Your task to perform on an android device: empty trash in google photos Image 0: 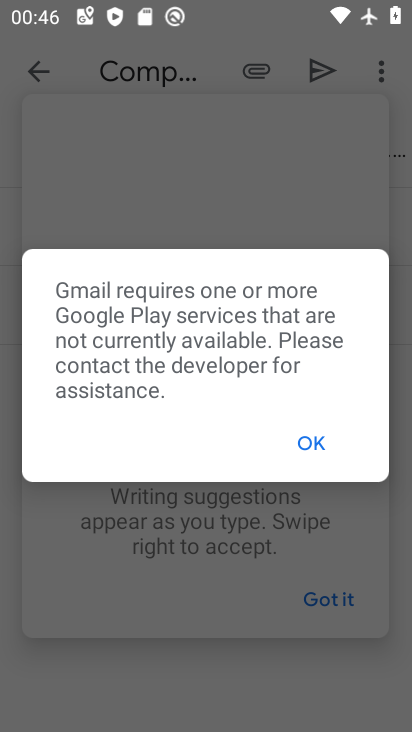
Step 0: click (304, 445)
Your task to perform on an android device: empty trash in google photos Image 1: 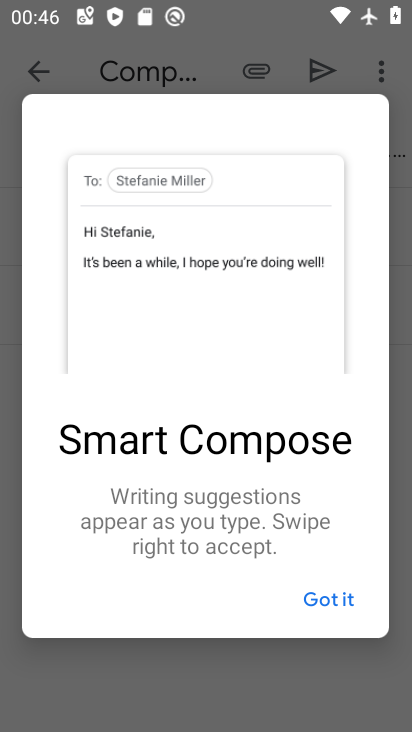
Step 1: press home button
Your task to perform on an android device: empty trash in google photos Image 2: 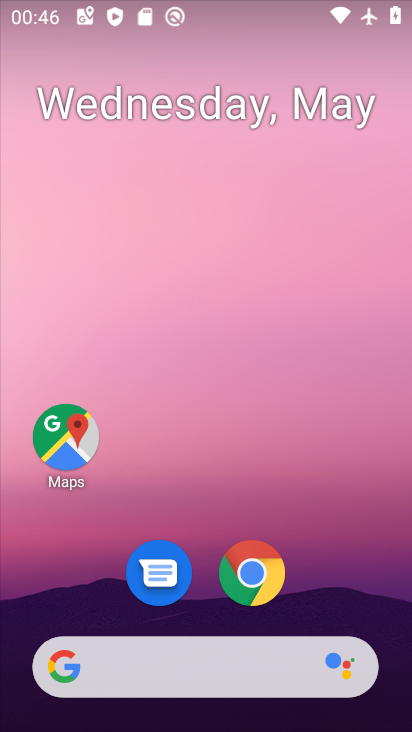
Step 2: drag from (234, 515) to (234, 137)
Your task to perform on an android device: empty trash in google photos Image 3: 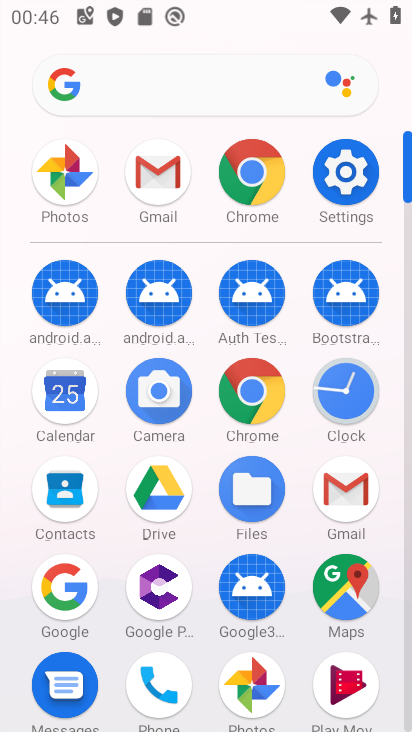
Step 3: click (239, 694)
Your task to perform on an android device: empty trash in google photos Image 4: 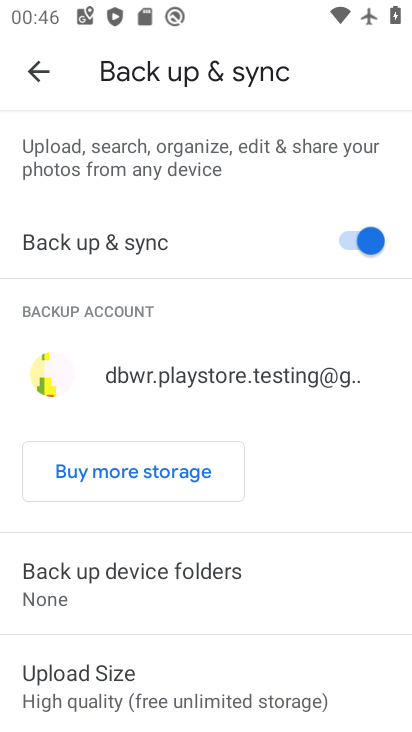
Step 4: click (37, 69)
Your task to perform on an android device: empty trash in google photos Image 5: 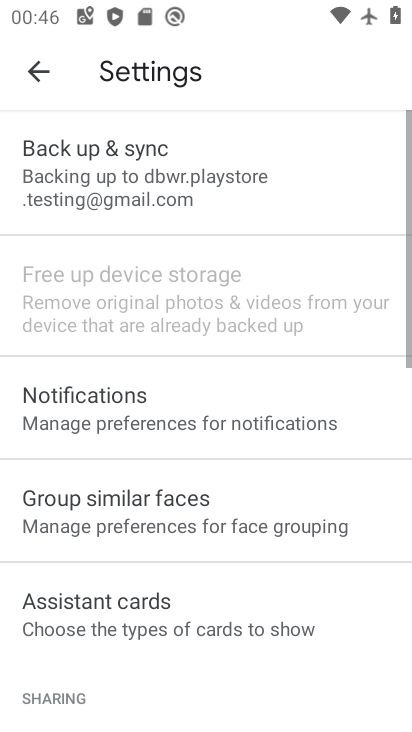
Step 5: click (37, 44)
Your task to perform on an android device: empty trash in google photos Image 6: 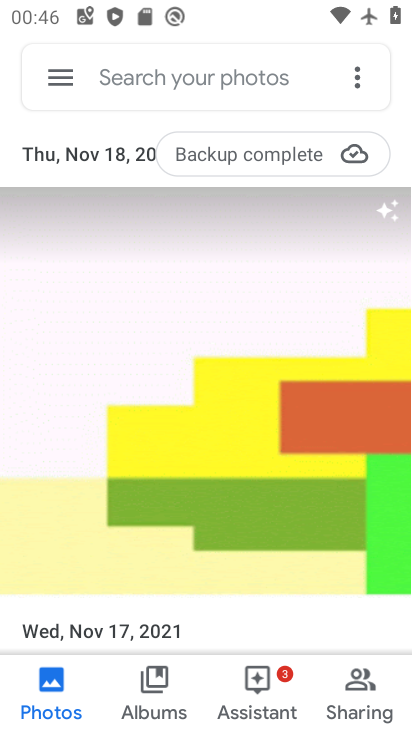
Step 6: click (41, 80)
Your task to perform on an android device: empty trash in google photos Image 7: 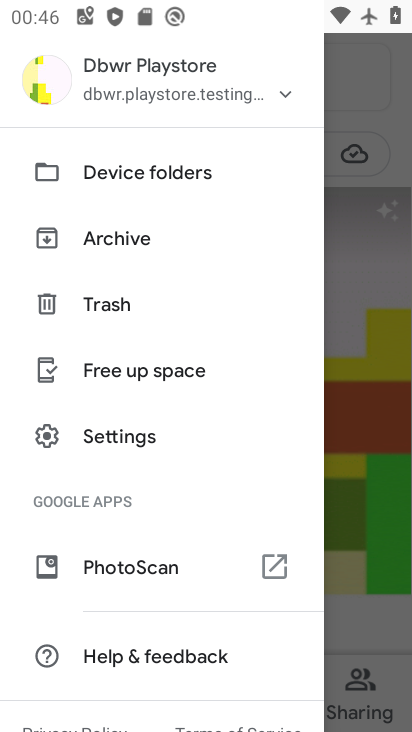
Step 7: click (127, 298)
Your task to perform on an android device: empty trash in google photos Image 8: 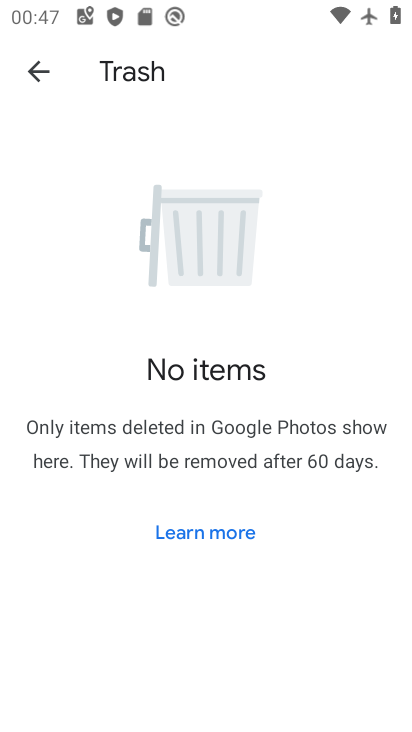
Step 8: task complete